Your task to perform on an android device: set an alarm Image 0: 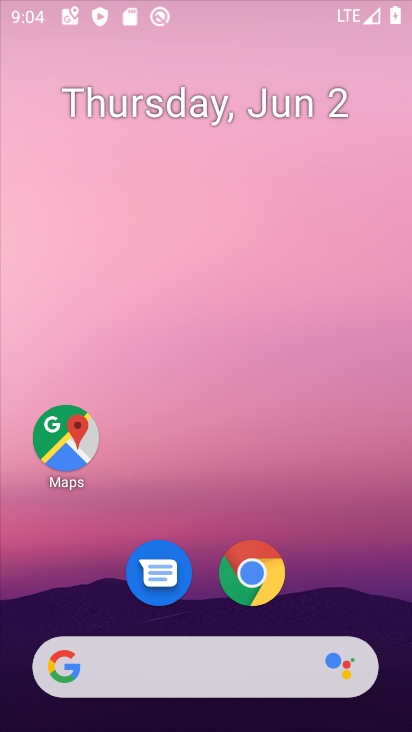
Step 0: press home button
Your task to perform on an android device: set an alarm Image 1: 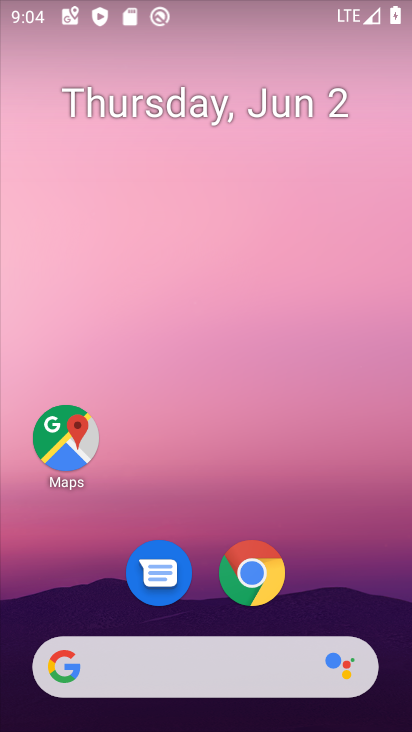
Step 1: drag from (348, 596) to (361, 2)
Your task to perform on an android device: set an alarm Image 2: 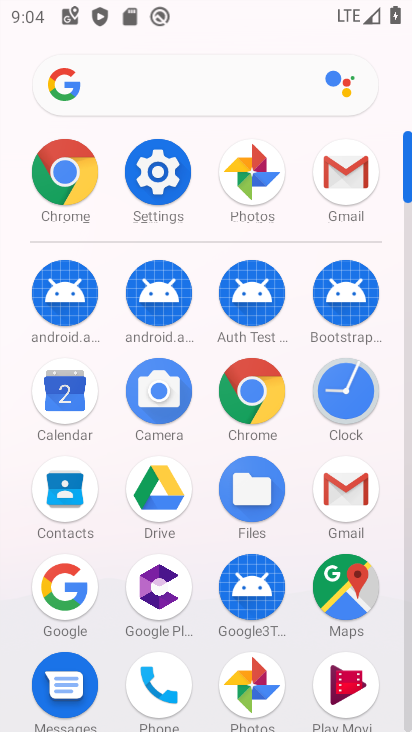
Step 2: click (332, 423)
Your task to perform on an android device: set an alarm Image 3: 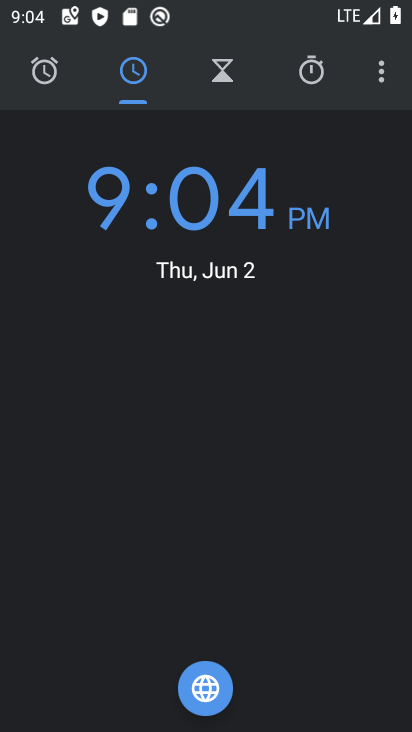
Step 3: click (62, 88)
Your task to perform on an android device: set an alarm Image 4: 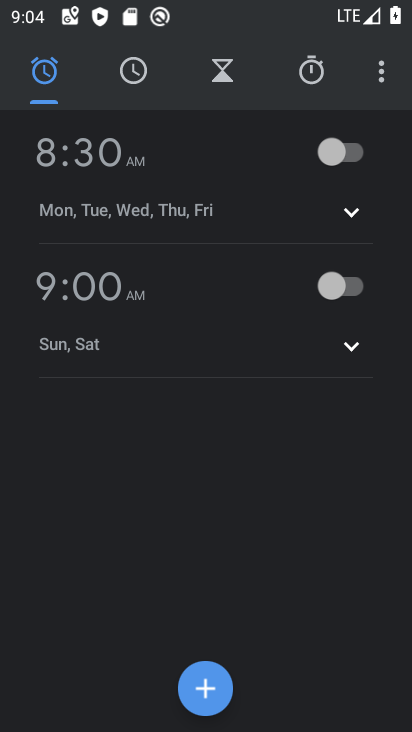
Step 4: click (209, 701)
Your task to perform on an android device: set an alarm Image 5: 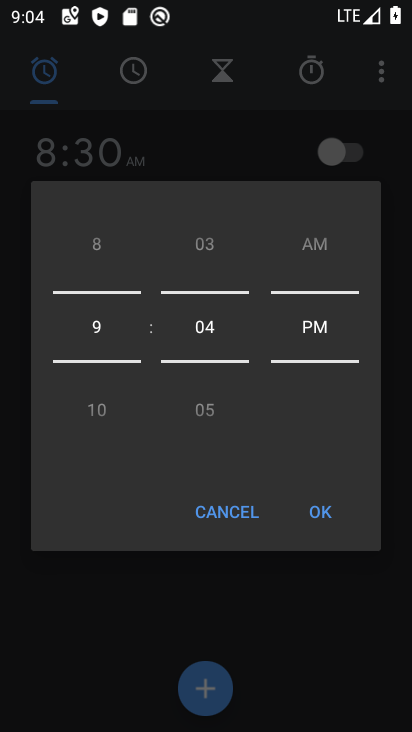
Step 5: drag from (315, 496) to (190, 714)
Your task to perform on an android device: set an alarm Image 6: 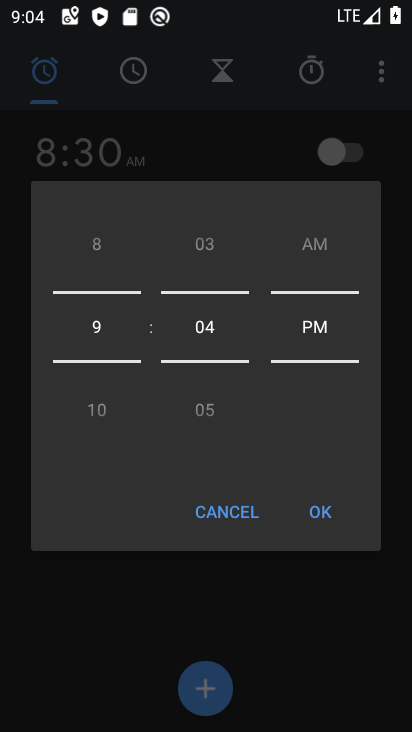
Step 6: click (327, 504)
Your task to perform on an android device: set an alarm Image 7: 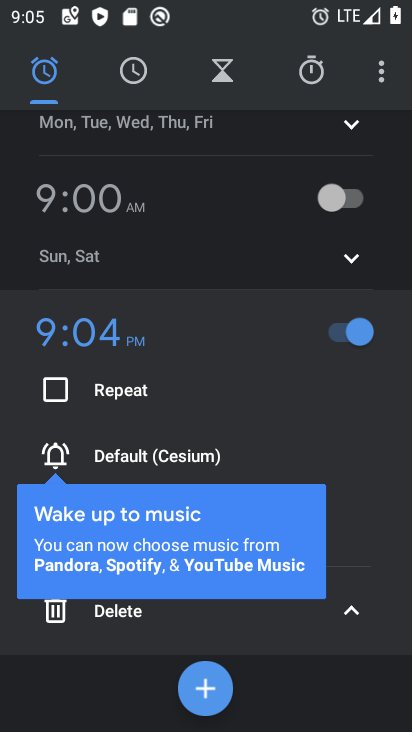
Step 7: task complete